Your task to perform on an android device: What's the weather? Image 0: 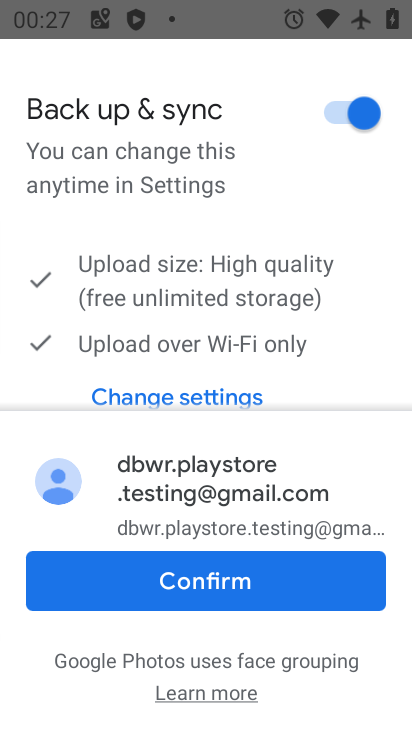
Step 0: press home button
Your task to perform on an android device: What's the weather? Image 1: 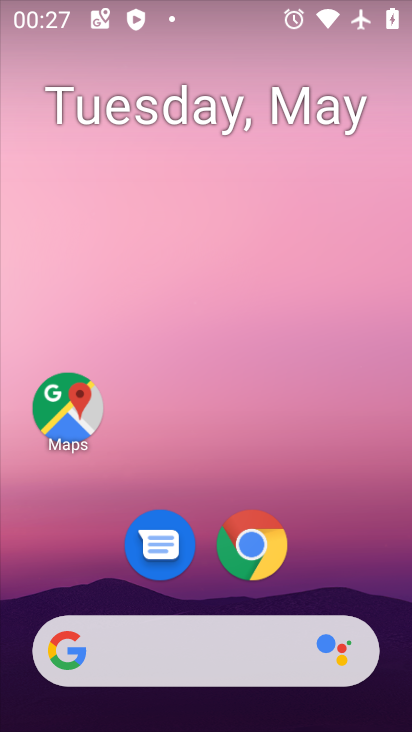
Step 1: drag from (332, 537) to (335, 5)
Your task to perform on an android device: What's the weather? Image 2: 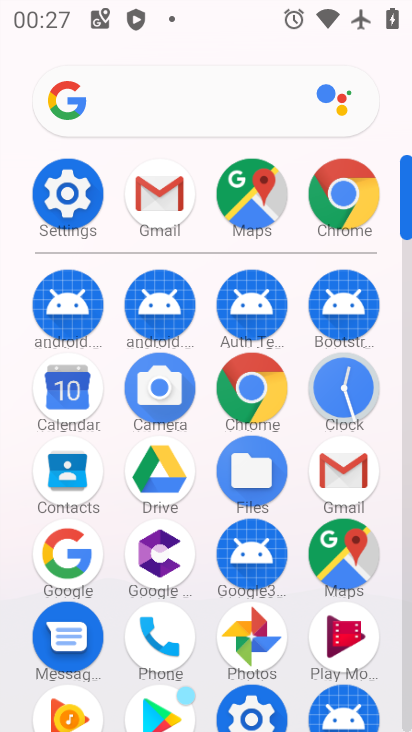
Step 2: click (137, 108)
Your task to perform on an android device: What's the weather? Image 3: 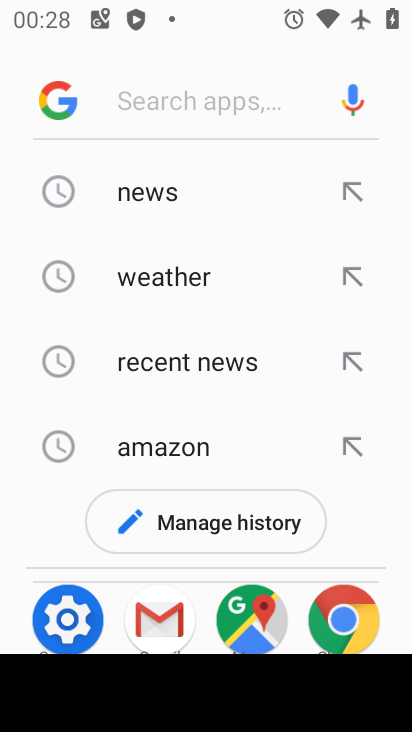
Step 3: type "what's the weather"
Your task to perform on an android device: What's the weather? Image 4: 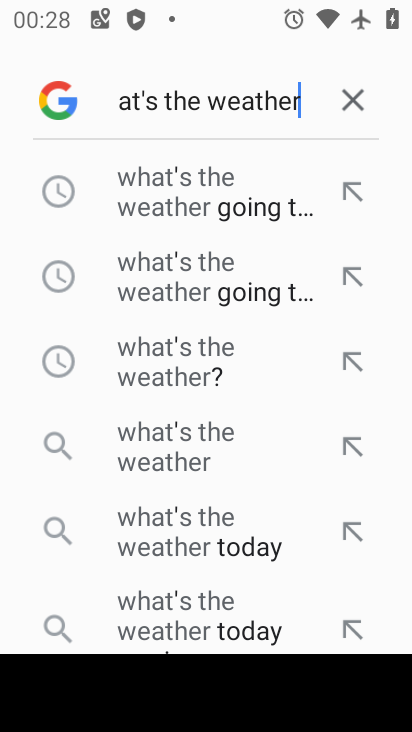
Step 4: click (237, 360)
Your task to perform on an android device: What's the weather? Image 5: 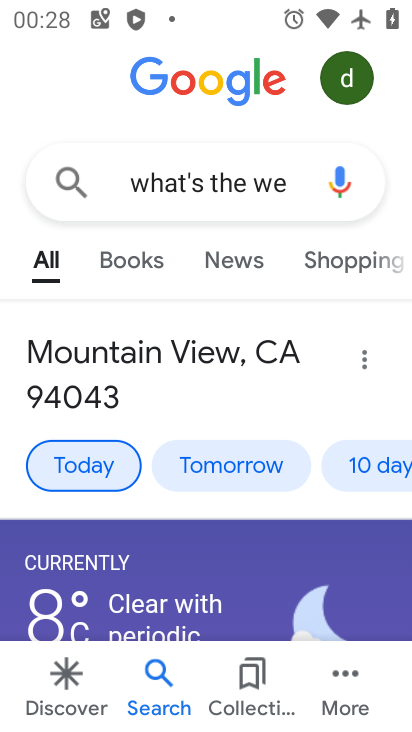
Step 5: task complete